Your task to perform on an android device: Go to wifi settings Image 0: 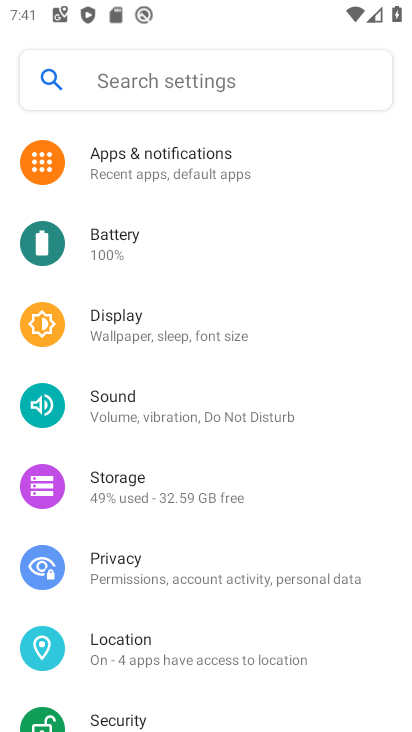
Step 0: press home button
Your task to perform on an android device: Go to wifi settings Image 1: 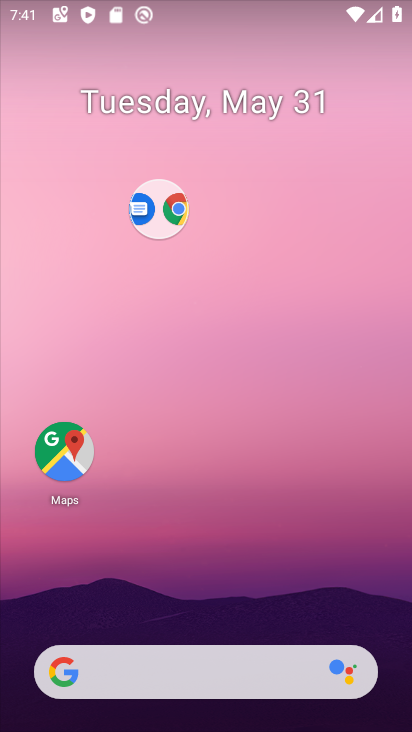
Step 1: drag from (219, 621) to (73, 8)
Your task to perform on an android device: Go to wifi settings Image 2: 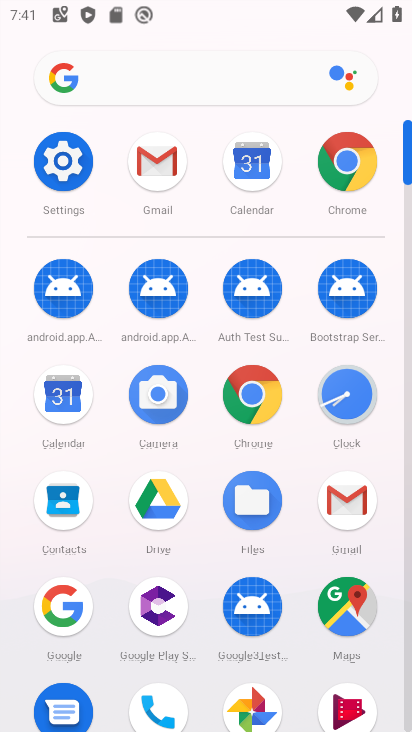
Step 2: click (74, 172)
Your task to perform on an android device: Go to wifi settings Image 3: 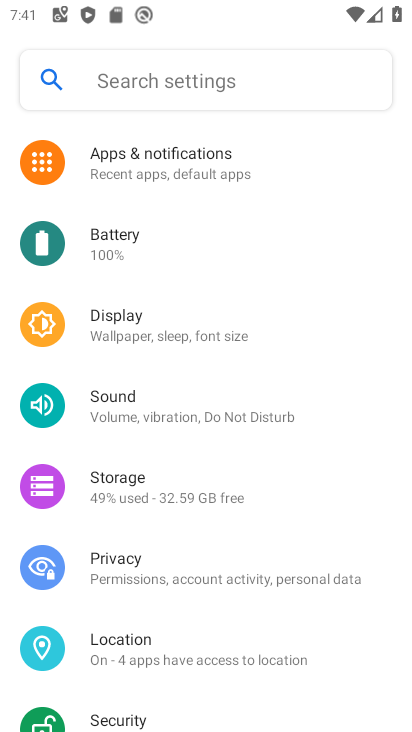
Step 3: drag from (148, 182) to (203, 485)
Your task to perform on an android device: Go to wifi settings Image 4: 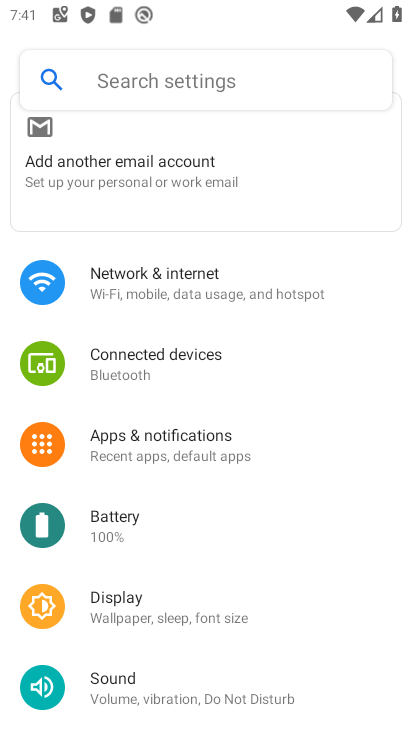
Step 4: click (143, 294)
Your task to perform on an android device: Go to wifi settings Image 5: 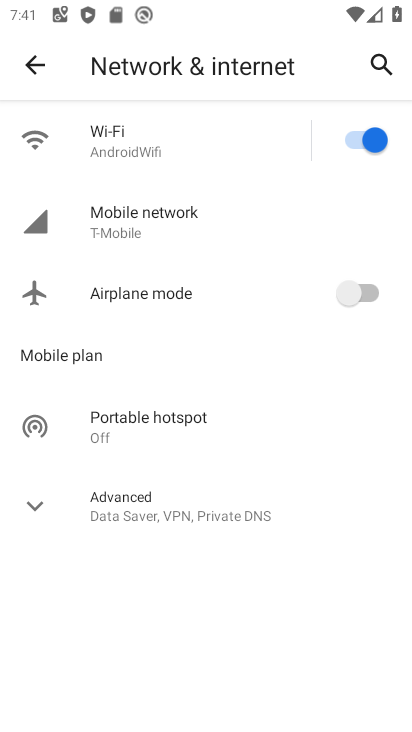
Step 5: click (142, 143)
Your task to perform on an android device: Go to wifi settings Image 6: 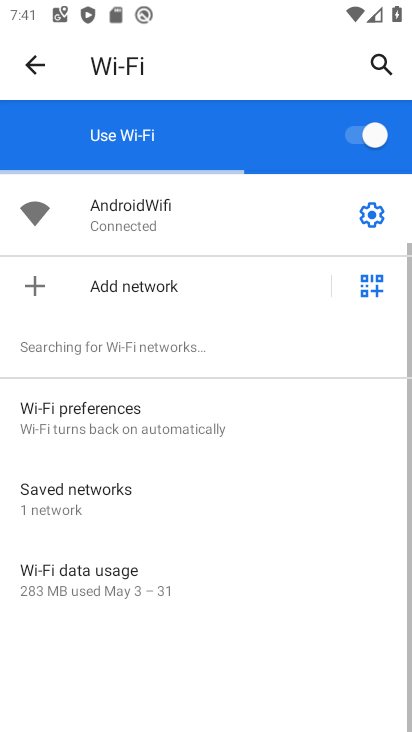
Step 6: task complete